Your task to perform on an android device: Look up the best rated wireless earbuds on Ali Express Image 0: 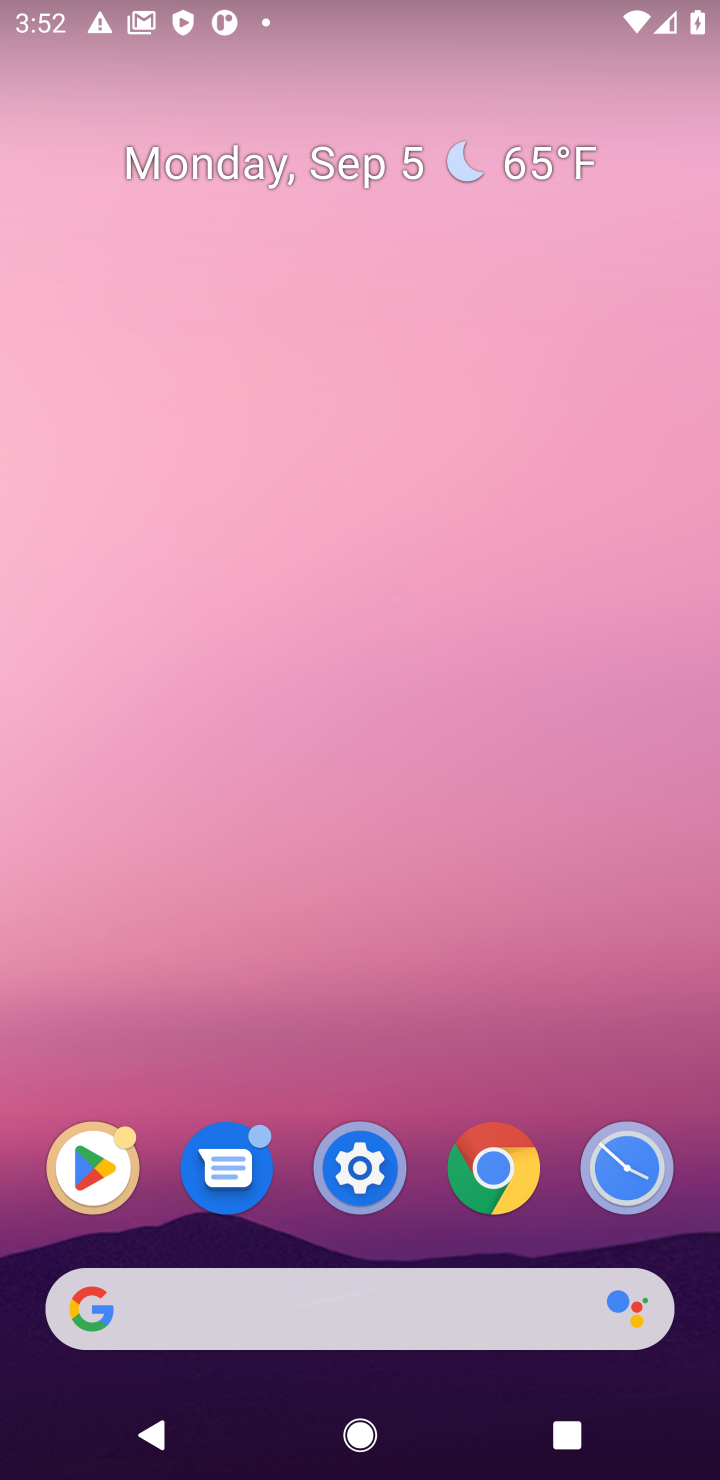
Step 0: click (192, 1308)
Your task to perform on an android device: Look up the best rated wireless earbuds on Ali Express Image 1: 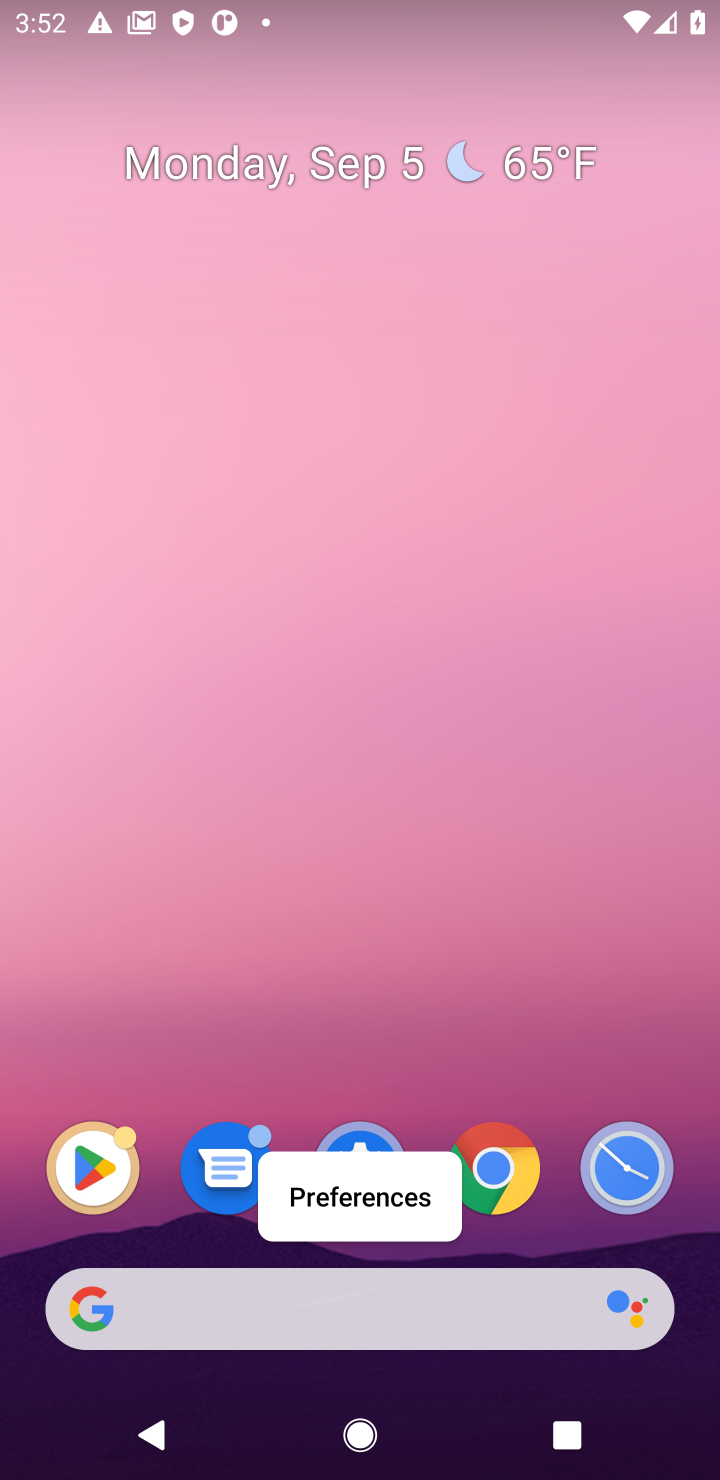
Step 1: click (192, 1308)
Your task to perform on an android device: Look up the best rated wireless earbuds on Ali Express Image 2: 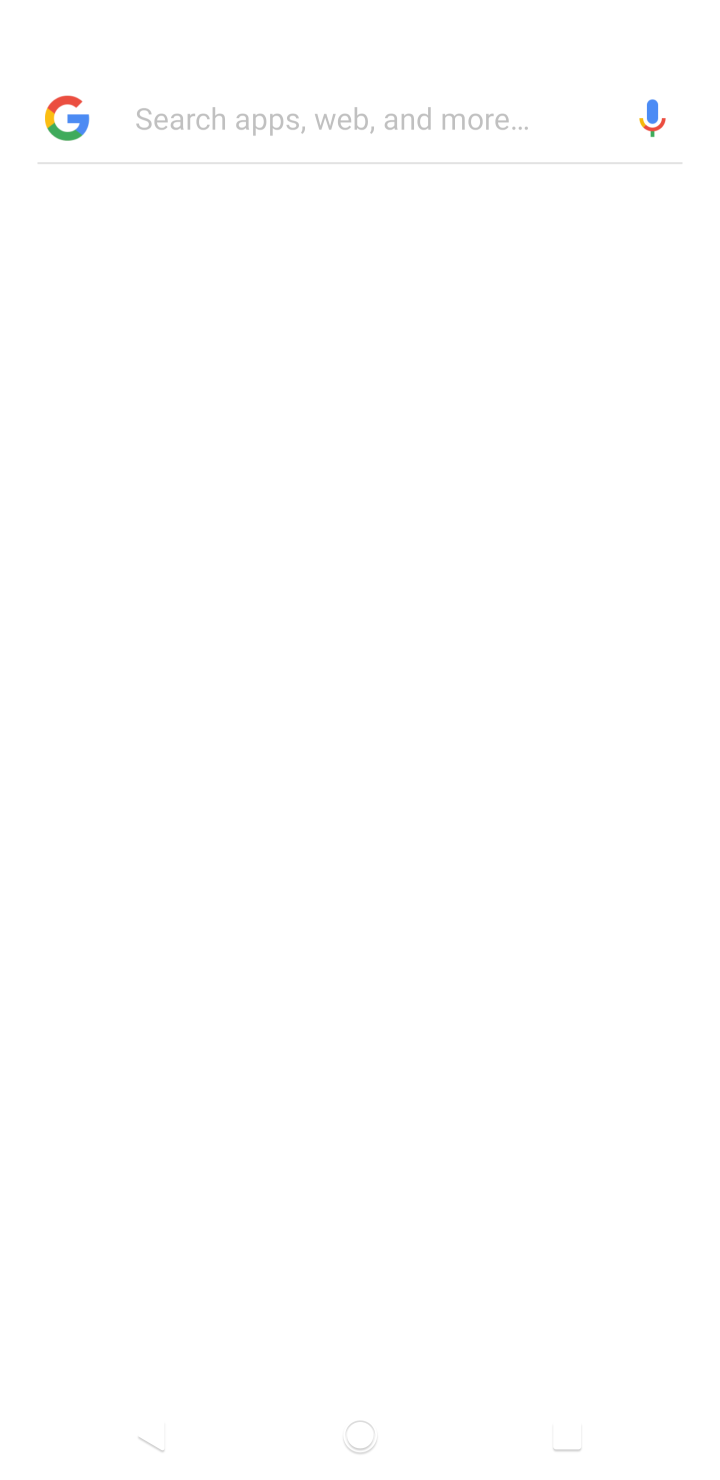
Step 2: click (192, 1308)
Your task to perform on an android device: Look up the best rated wireless earbuds on Ali Express Image 3: 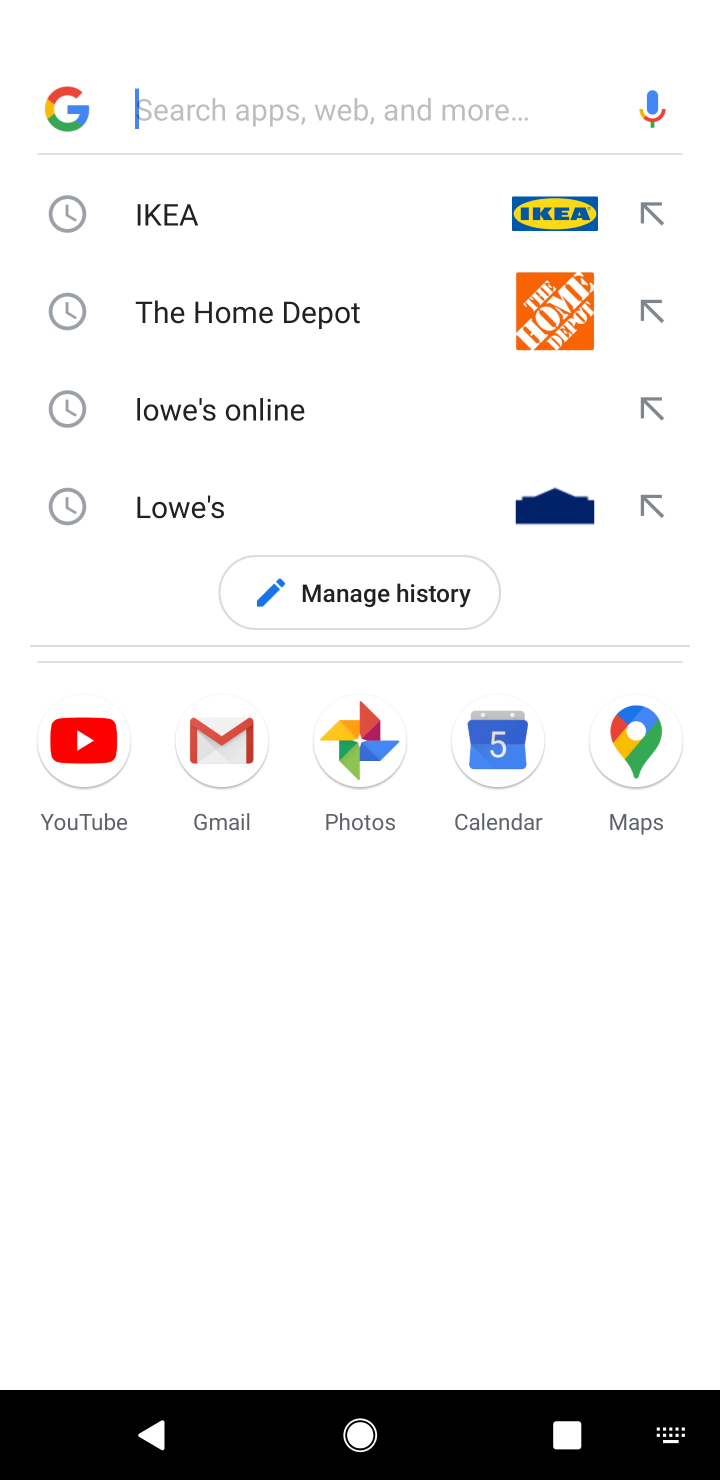
Step 3: type "ali express"
Your task to perform on an android device: Look up the best rated wireless earbuds on Ali Express Image 4: 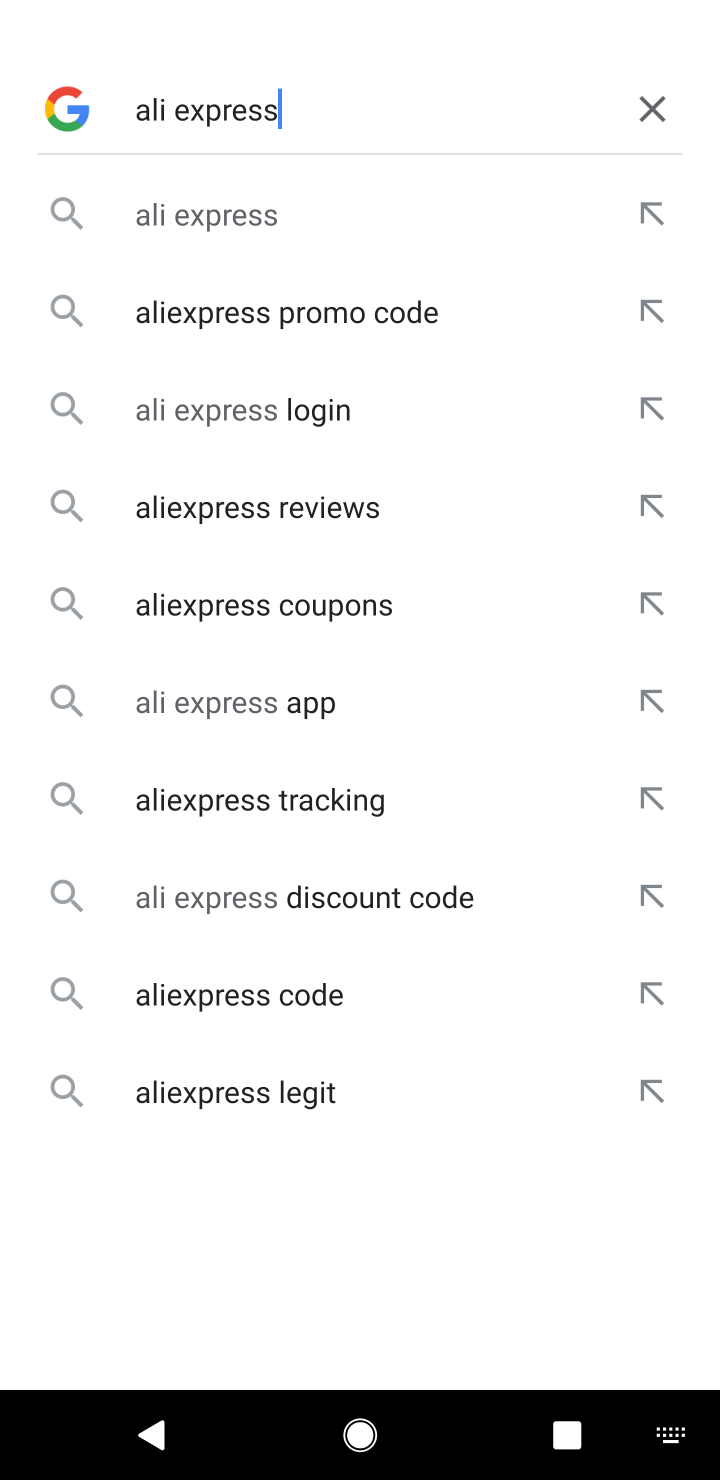
Step 4: click (341, 197)
Your task to perform on an android device: Look up the best rated wireless earbuds on Ali Express Image 5: 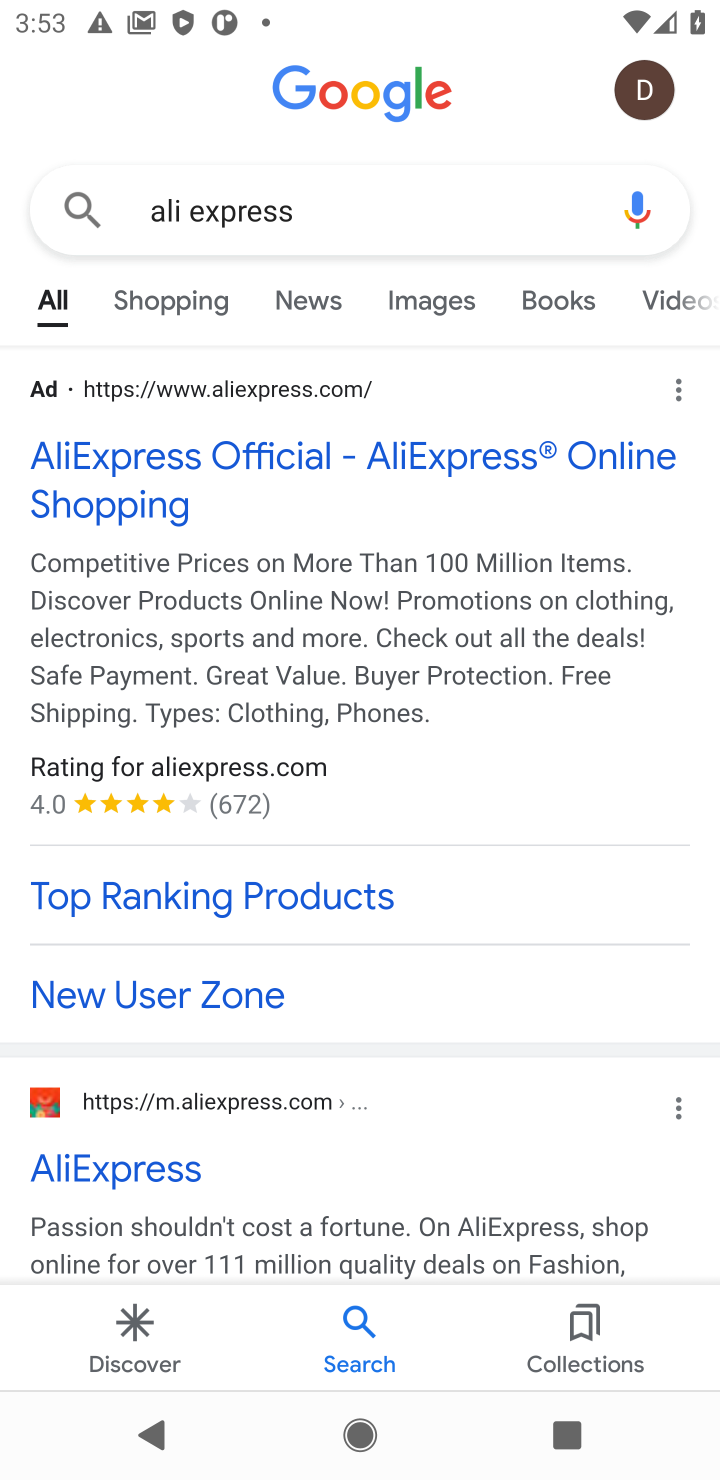
Step 5: click (103, 1143)
Your task to perform on an android device: Look up the best rated wireless earbuds on Ali Express Image 6: 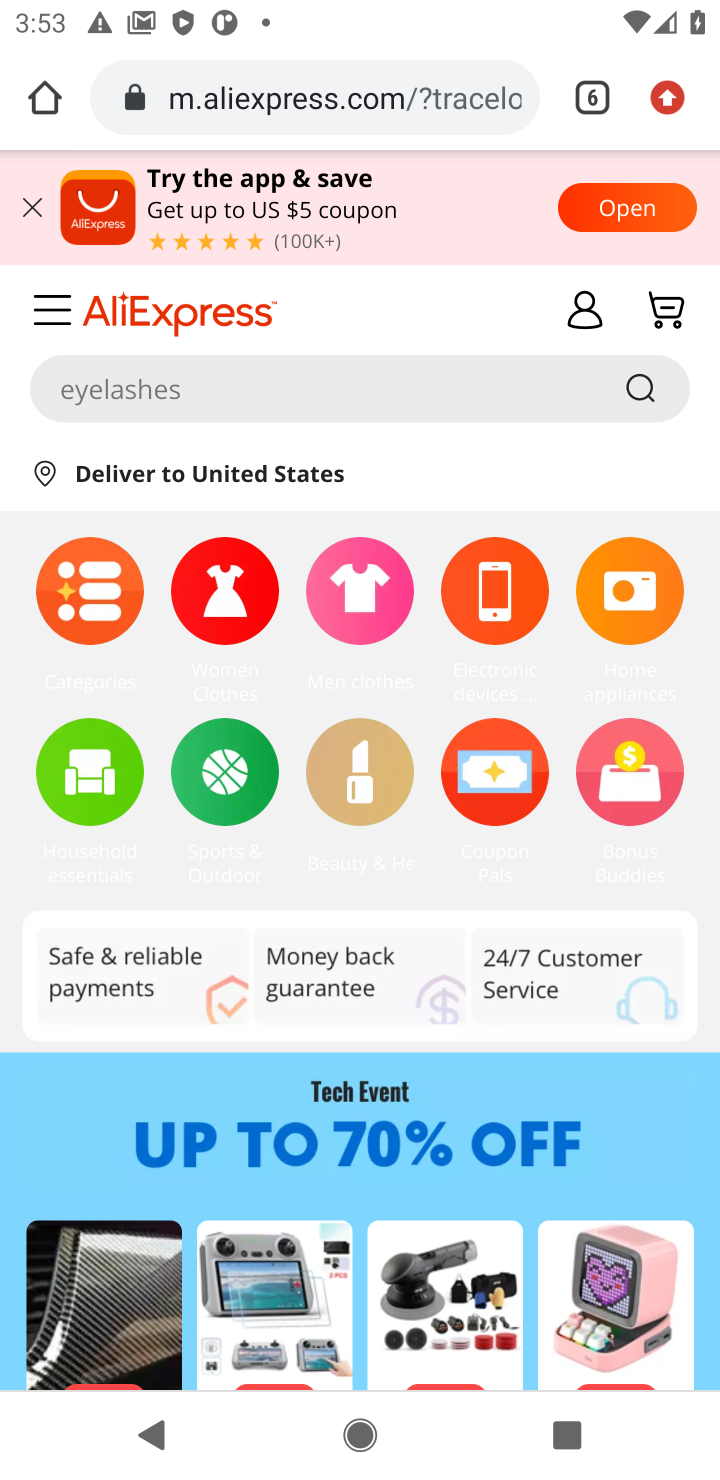
Step 6: click (467, 384)
Your task to perform on an android device: Look up the best rated wireless earbuds on Ali Express Image 7: 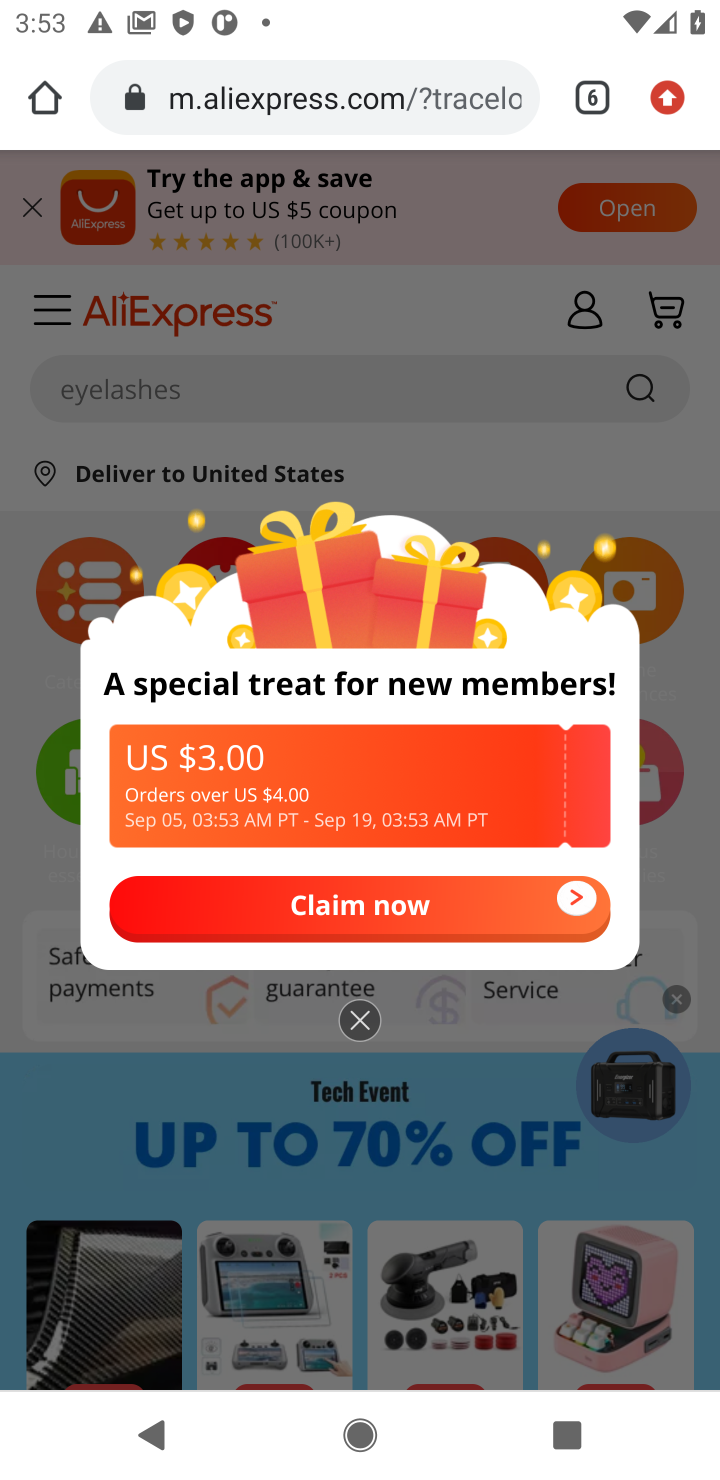
Step 7: click (351, 1017)
Your task to perform on an android device: Look up the best rated wireless earbuds on Ali Express Image 8: 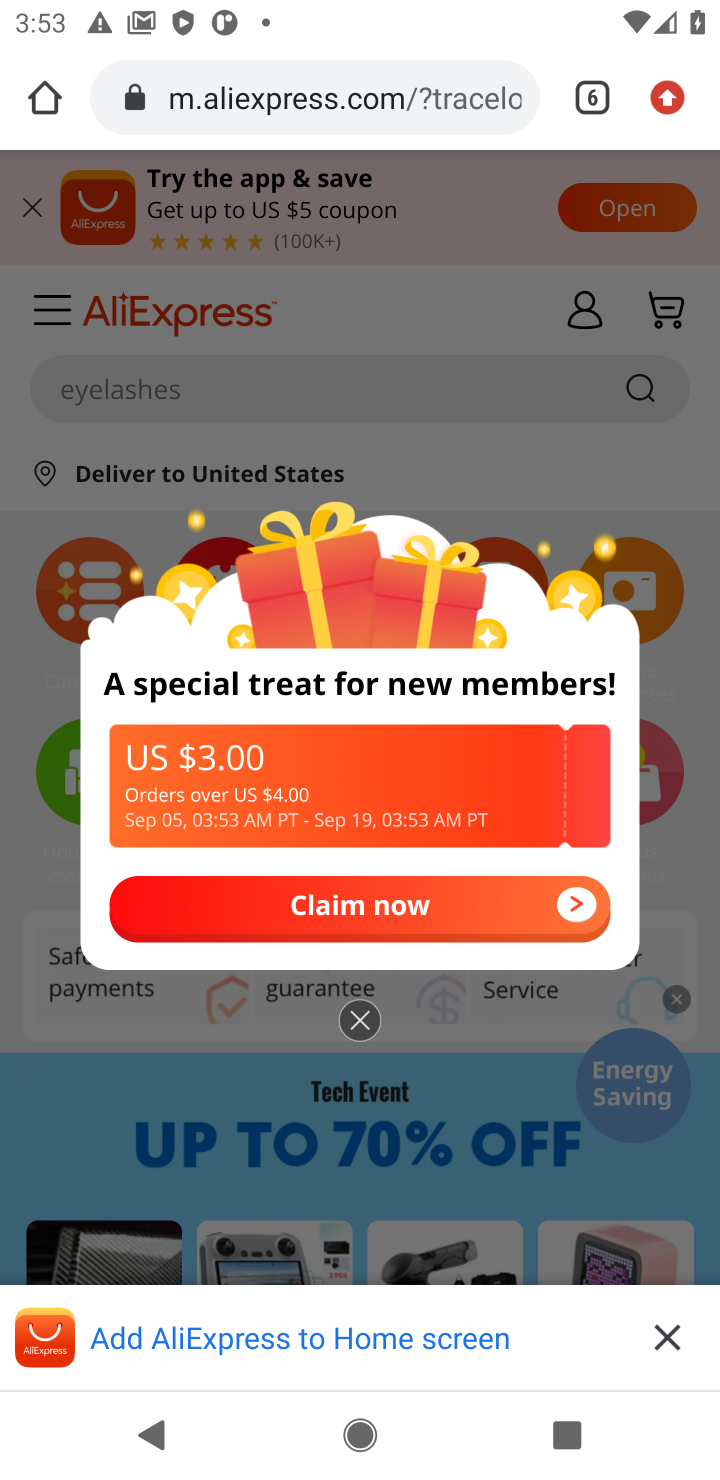
Step 8: click (351, 1017)
Your task to perform on an android device: Look up the best rated wireless earbuds on Ali Express Image 9: 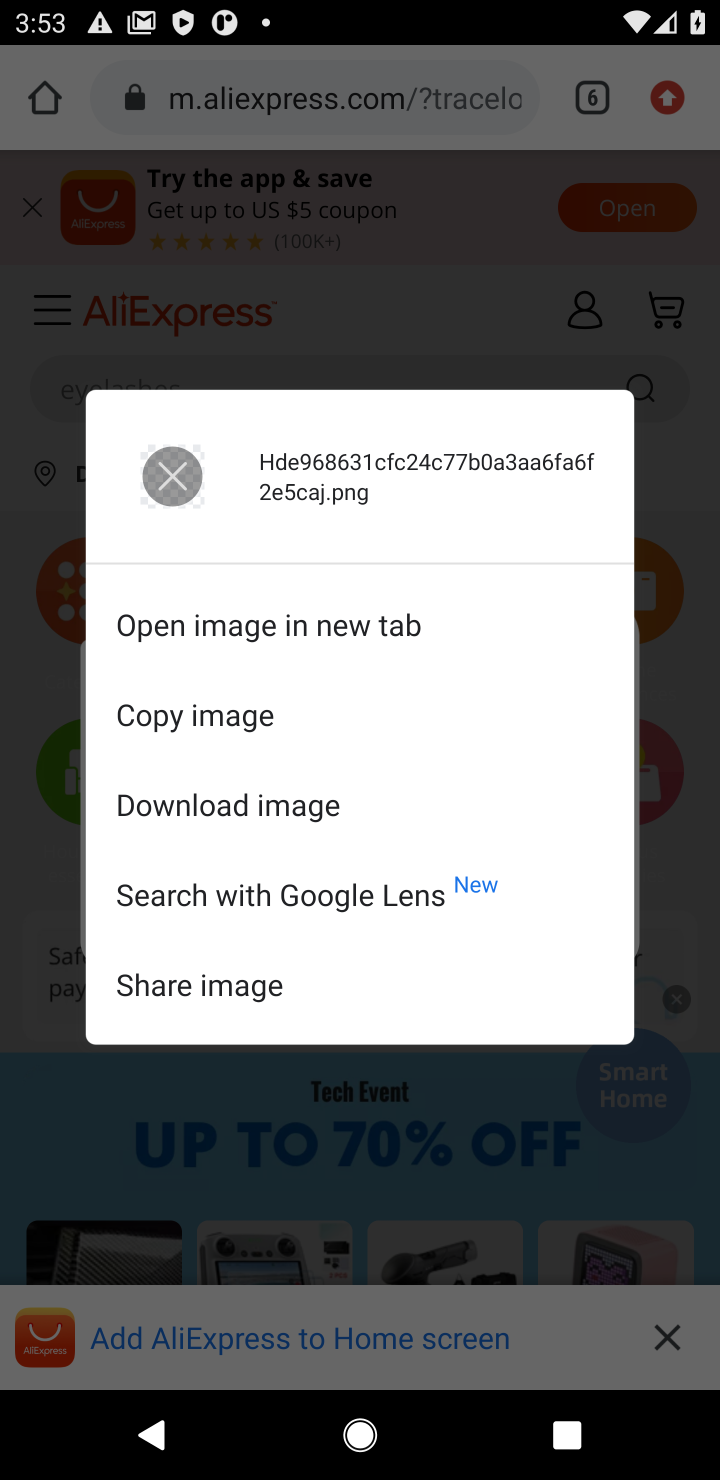
Step 9: click (373, 1081)
Your task to perform on an android device: Look up the best rated wireless earbuds on Ali Express Image 10: 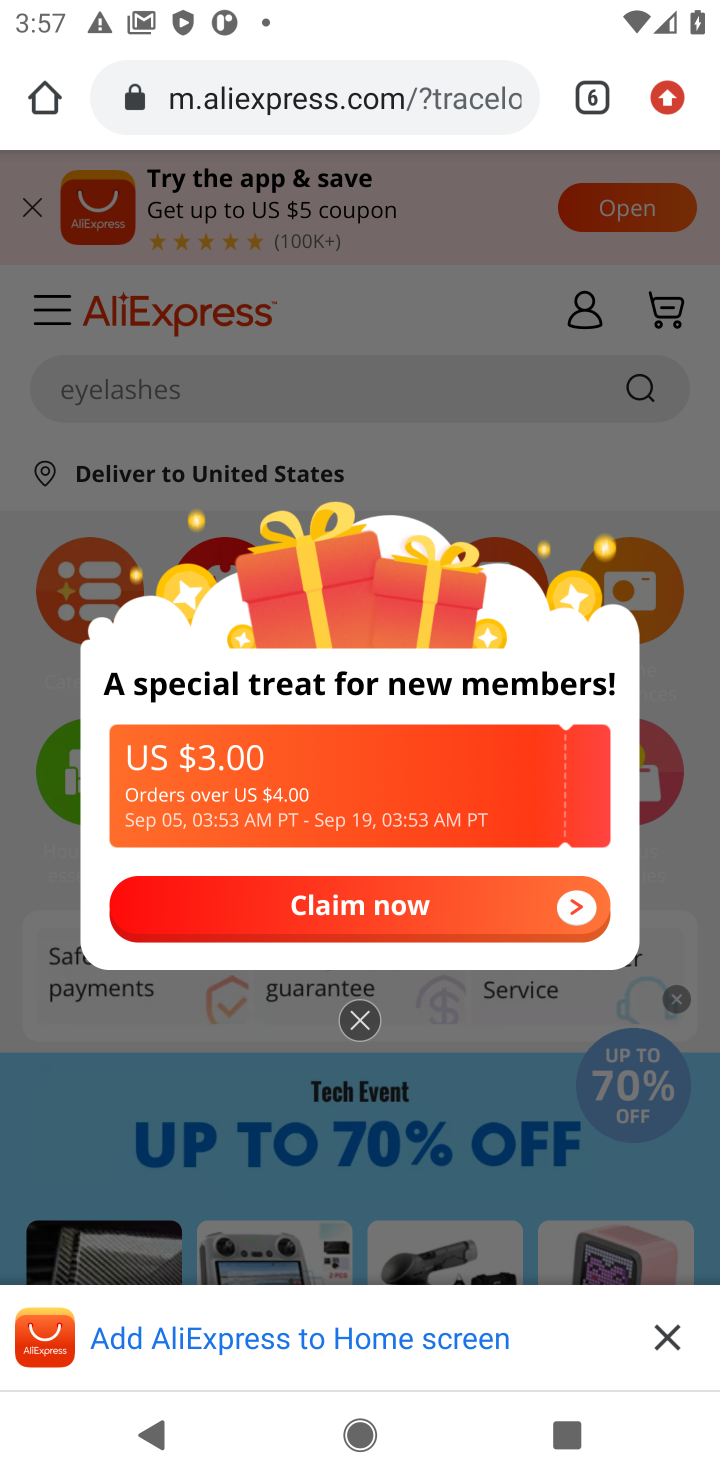
Step 10: task complete